Your task to perform on an android device: open app "Firefox Browser" Image 0: 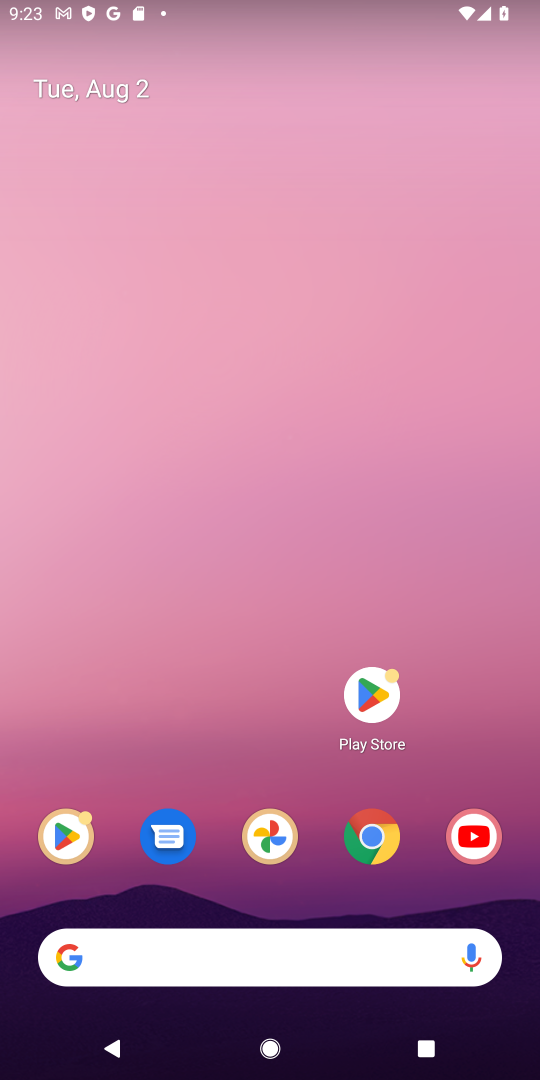
Step 0: drag from (305, 901) to (242, 656)
Your task to perform on an android device: open app "Firefox Browser" Image 1: 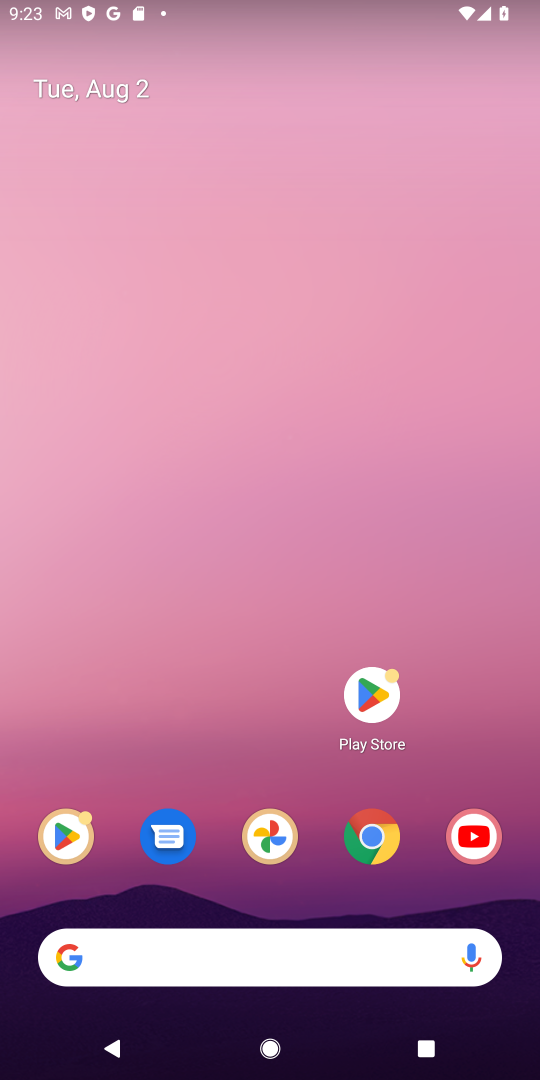
Step 1: click (237, 703)
Your task to perform on an android device: open app "Firefox Browser" Image 2: 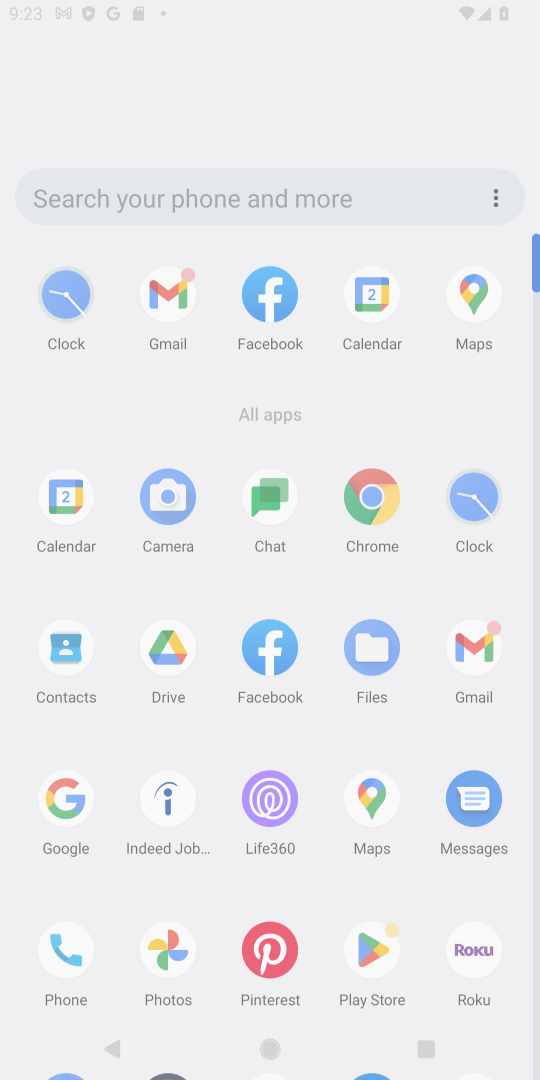
Step 2: drag from (237, 823) to (238, 733)
Your task to perform on an android device: open app "Firefox Browser" Image 3: 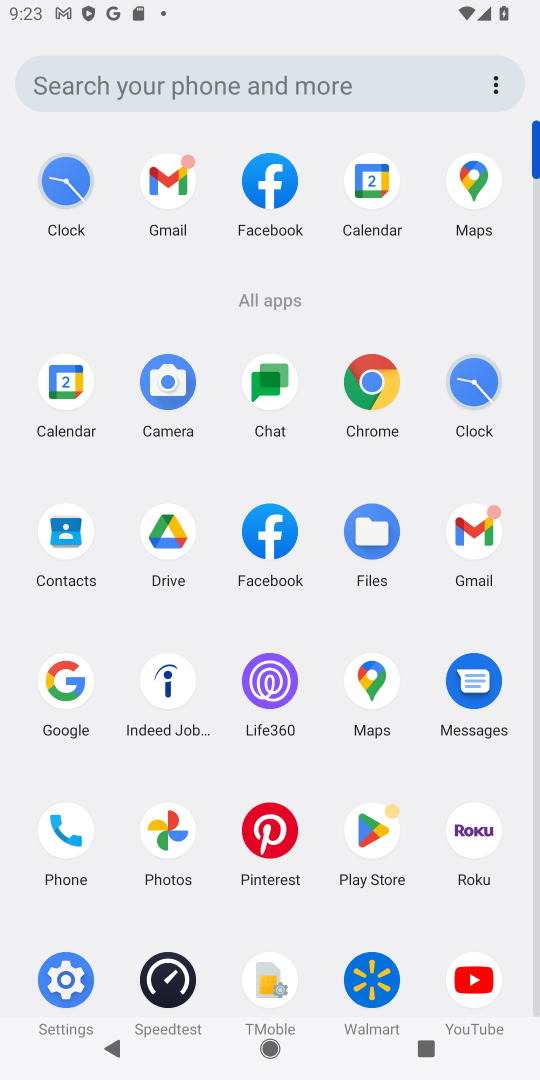
Step 3: drag from (213, 939) to (211, 625)
Your task to perform on an android device: open app "Firefox Browser" Image 4: 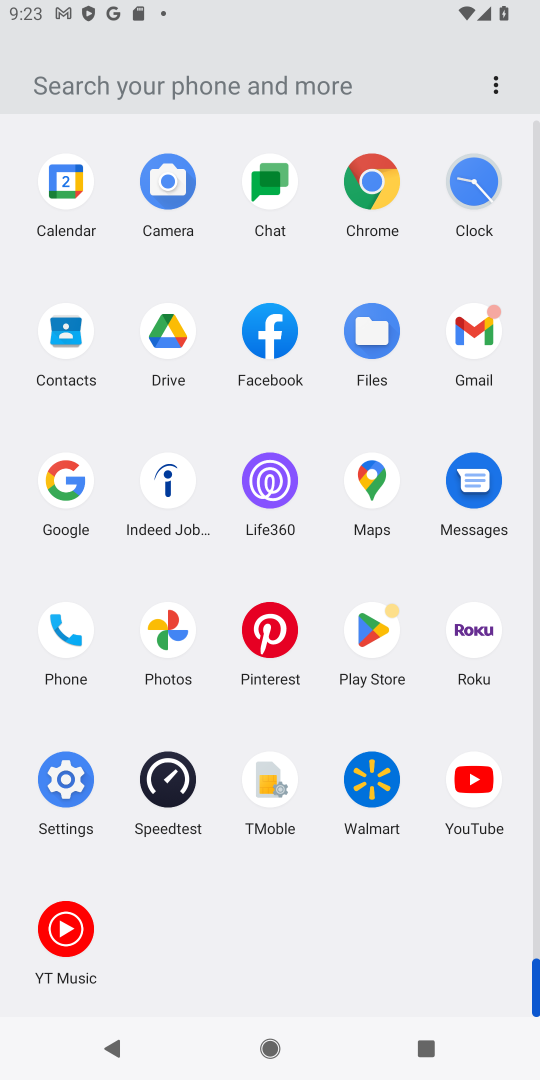
Step 4: click (372, 638)
Your task to perform on an android device: open app "Firefox Browser" Image 5: 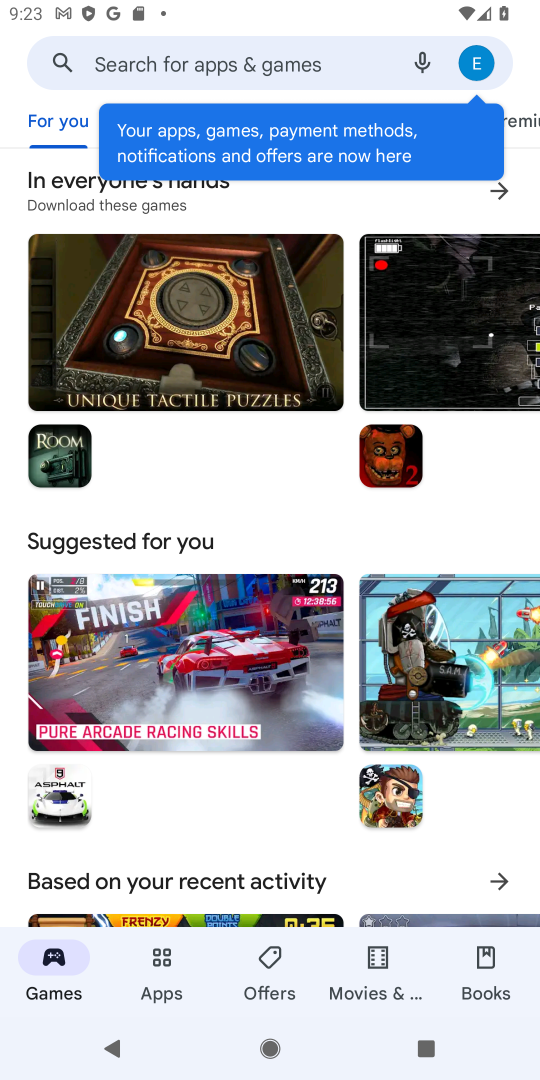
Step 5: click (144, 56)
Your task to perform on an android device: open app "Firefox Browser" Image 6: 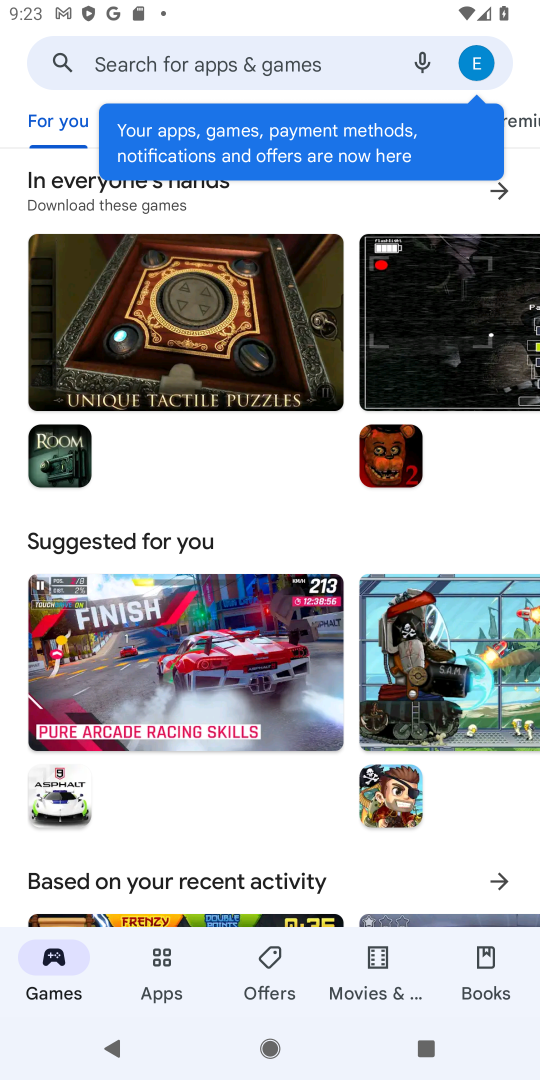
Step 6: click (141, 58)
Your task to perform on an android device: open app "Firefox Browser" Image 7: 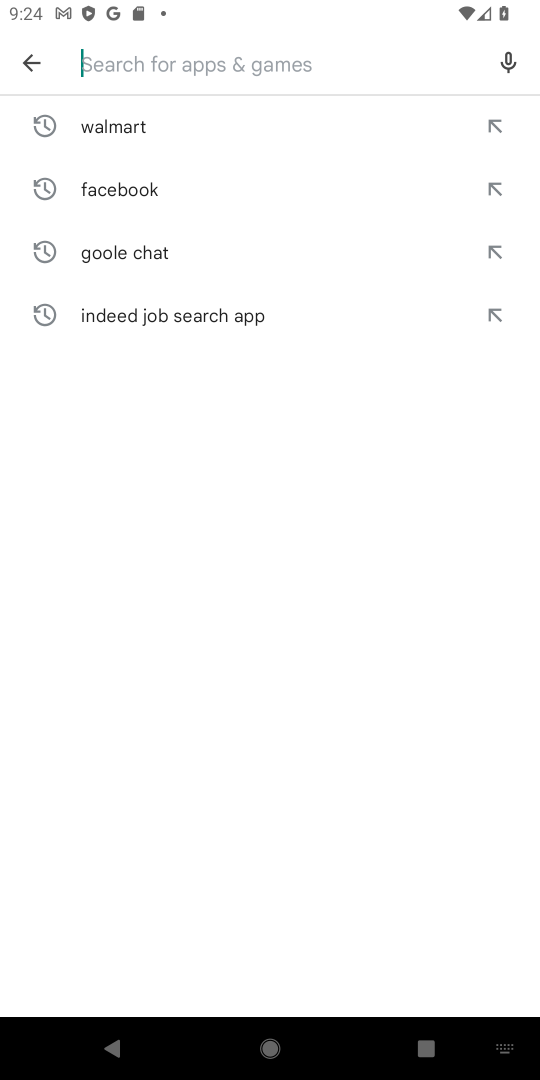
Step 7: click (97, 42)
Your task to perform on an android device: open app "Firefox Browser" Image 8: 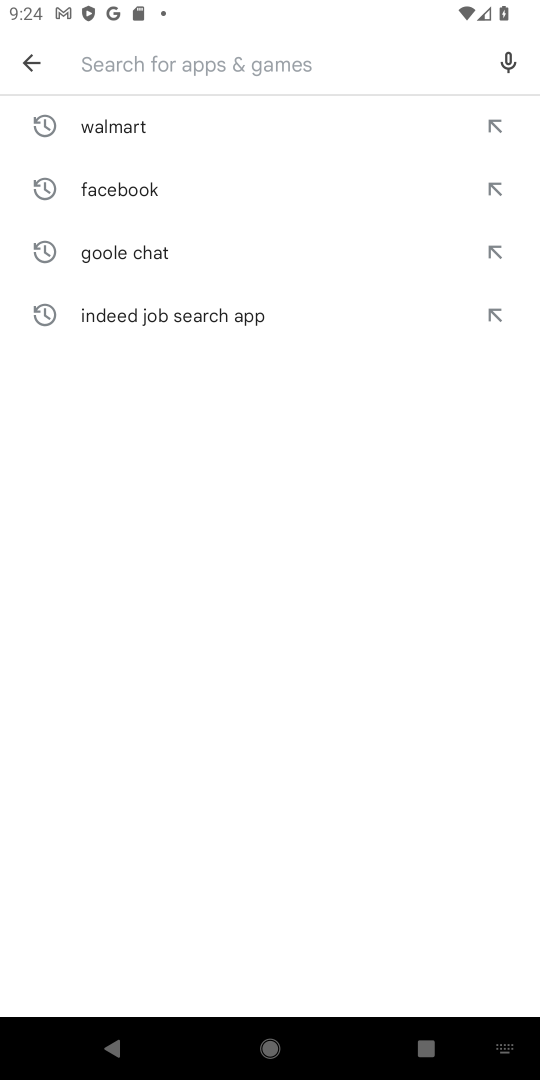
Step 8: click (98, 41)
Your task to perform on an android device: open app "Firefox Browser" Image 9: 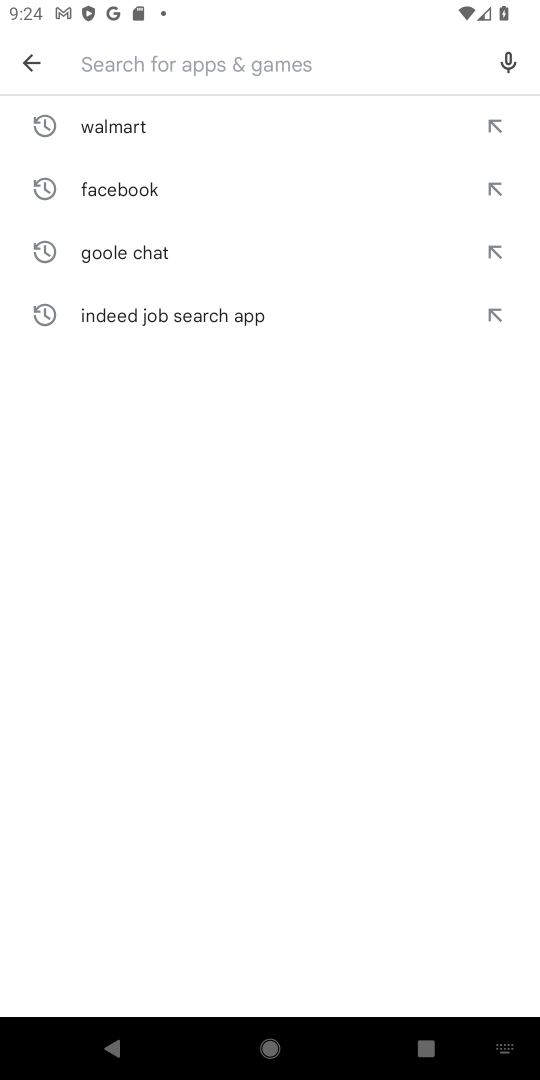
Step 9: click (101, 37)
Your task to perform on an android device: open app "Firefox Browser" Image 10: 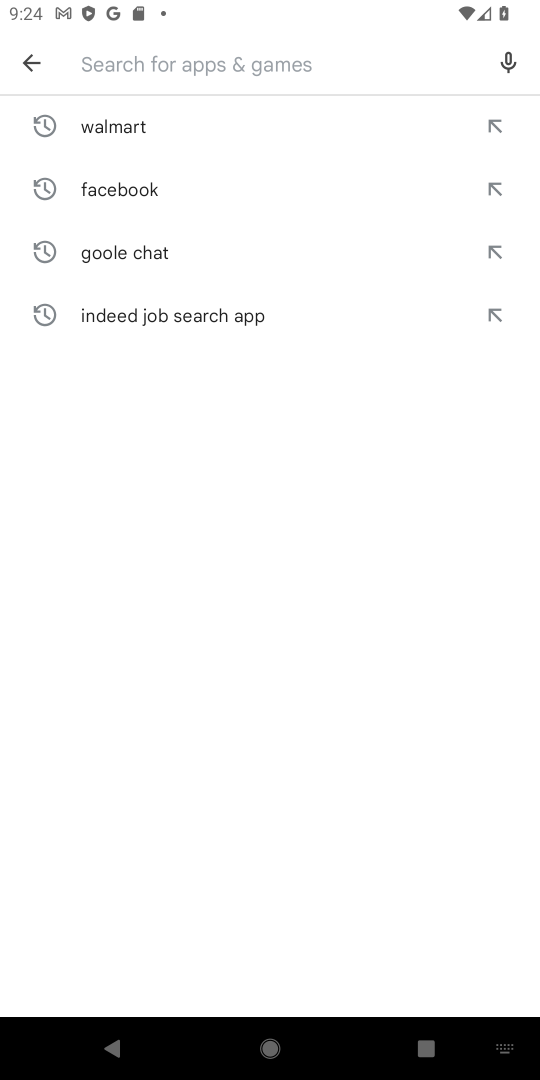
Step 10: type "firefox"
Your task to perform on an android device: open app "Firefox Browser" Image 11: 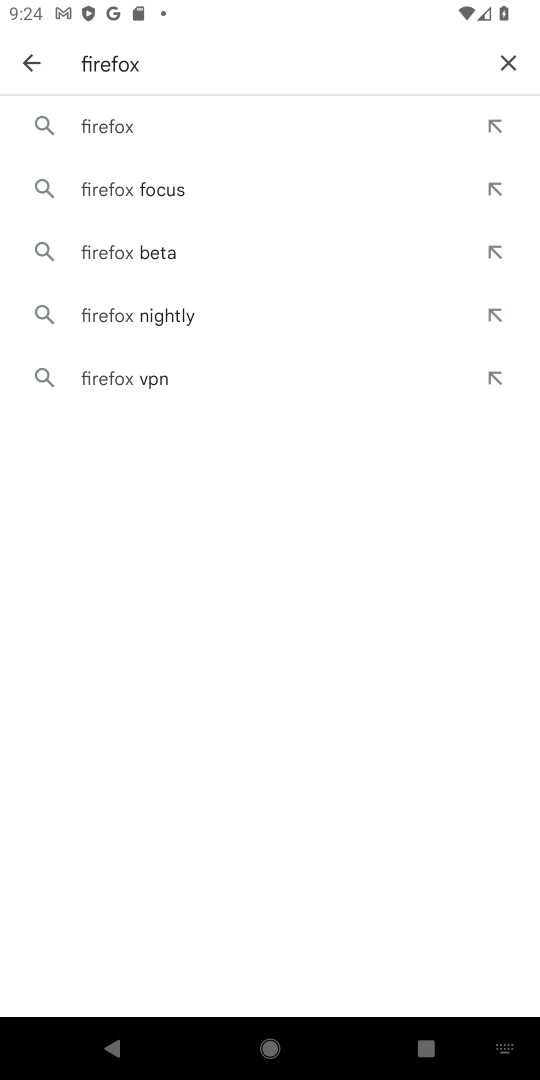
Step 11: click (116, 141)
Your task to perform on an android device: open app "Firefox Browser" Image 12: 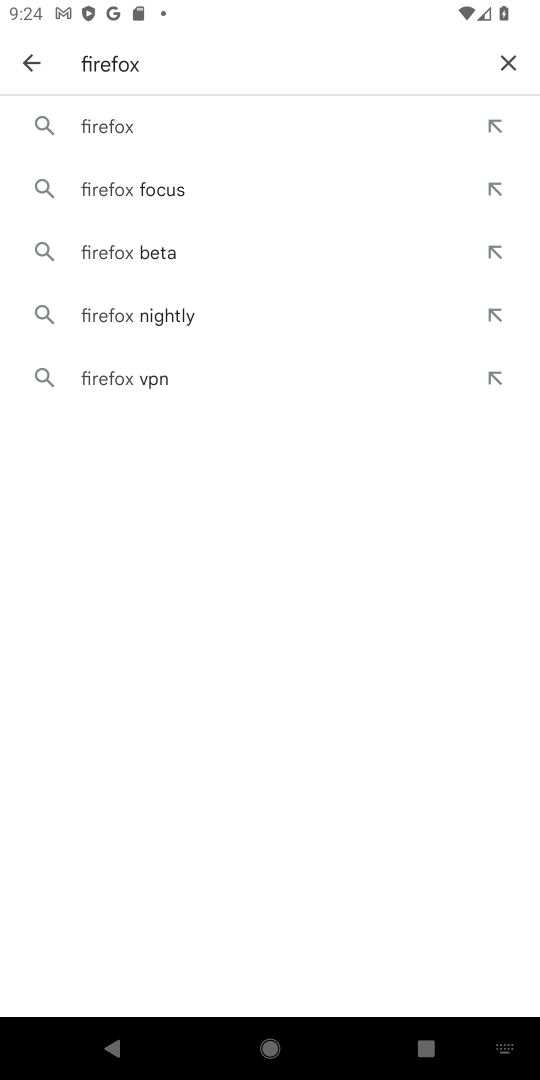
Step 12: click (118, 149)
Your task to perform on an android device: open app "Firefox Browser" Image 13: 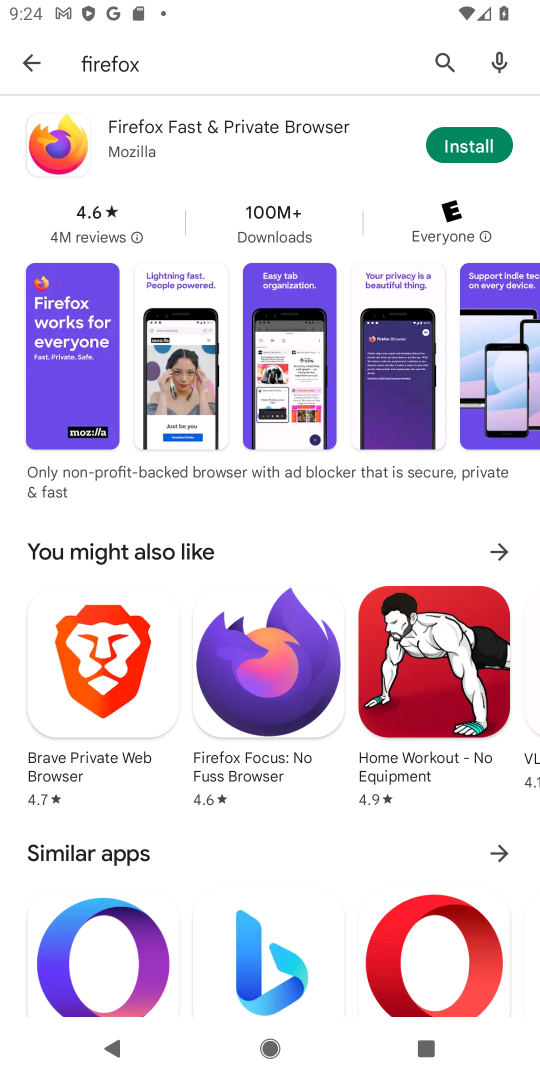
Step 13: click (461, 167)
Your task to perform on an android device: open app "Firefox Browser" Image 14: 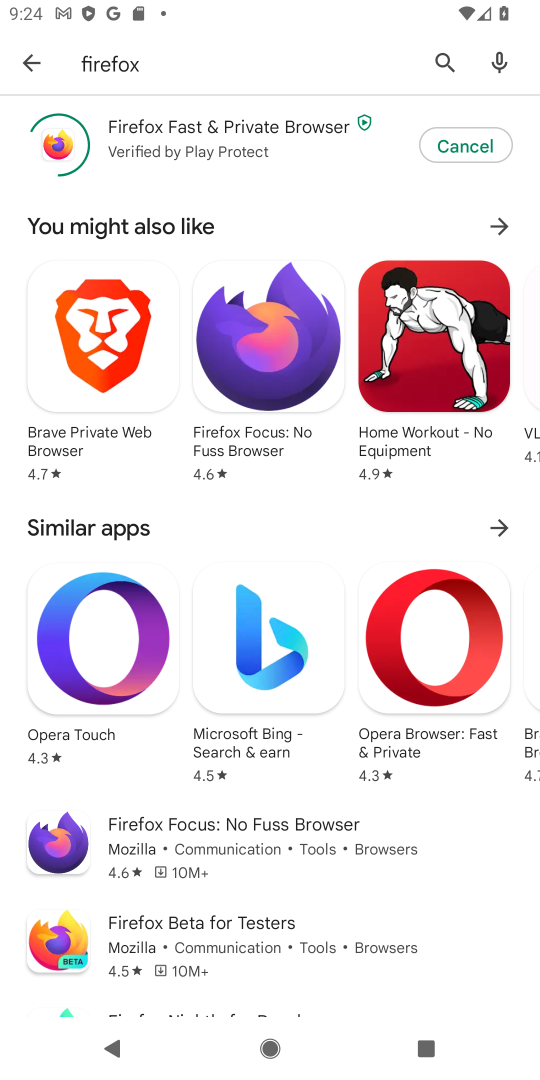
Step 14: task complete